Your task to perform on an android device: Go to eBay Image 0: 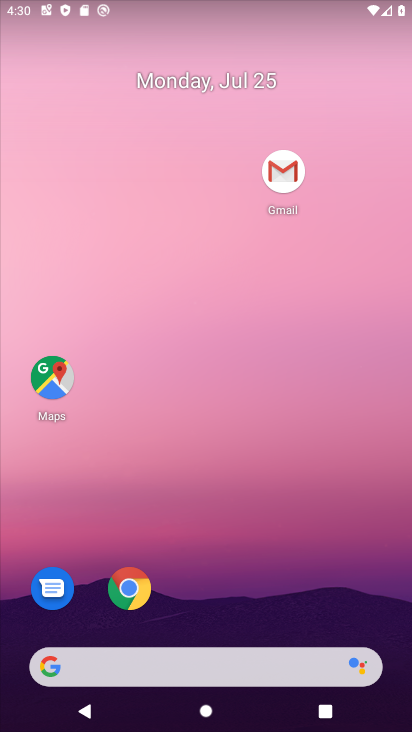
Step 0: click (129, 587)
Your task to perform on an android device: Go to eBay Image 1: 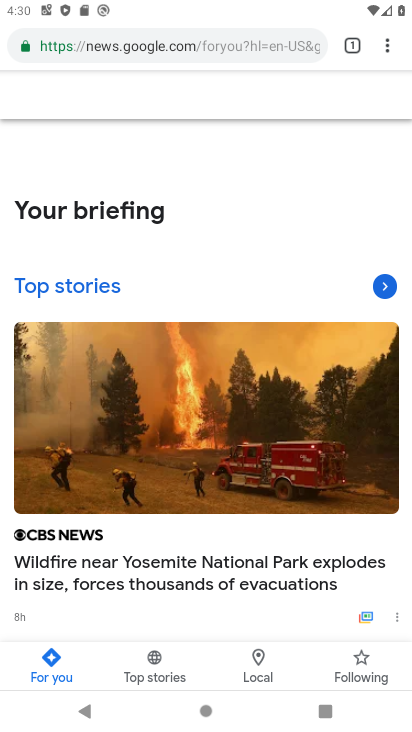
Step 1: click (202, 51)
Your task to perform on an android device: Go to eBay Image 2: 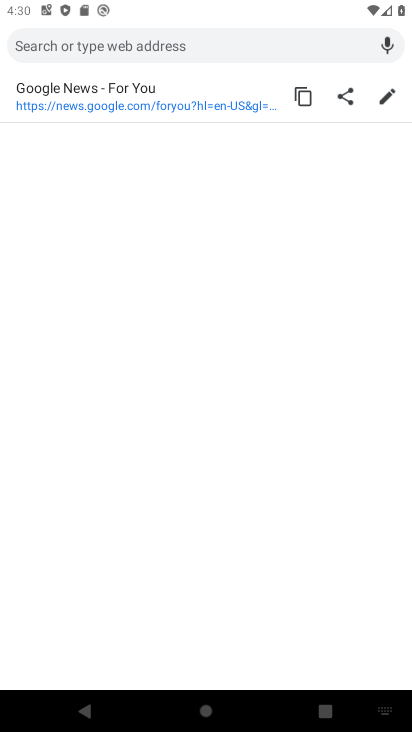
Step 2: type "ebay"
Your task to perform on an android device: Go to eBay Image 3: 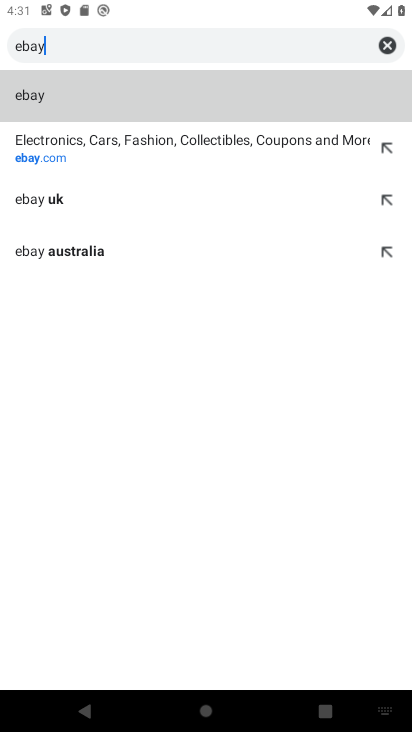
Step 3: click (40, 159)
Your task to perform on an android device: Go to eBay Image 4: 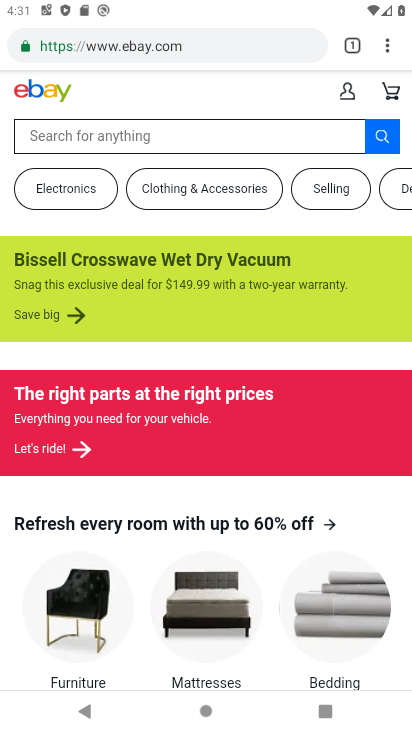
Step 4: task complete